Your task to perform on an android device: Open Google Chrome and click the shortcut for Amazon.com Image 0: 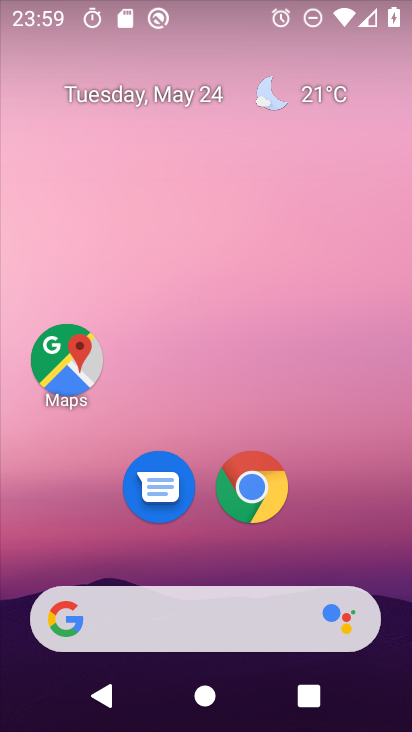
Step 0: click (328, 504)
Your task to perform on an android device: Open Google Chrome and click the shortcut for Amazon.com Image 1: 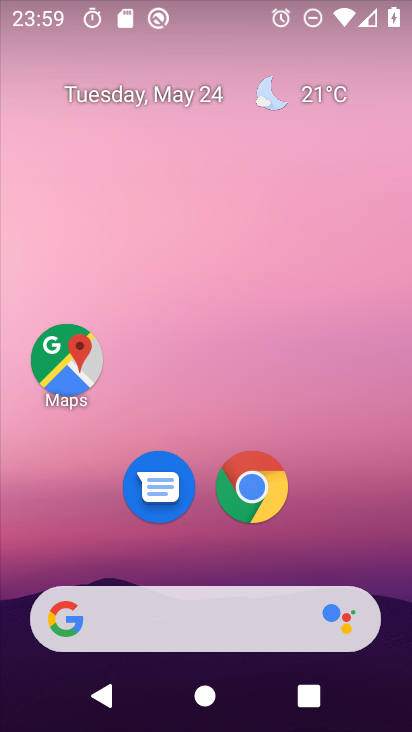
Step 1: click (251, 487)
Your task to perform on an android device: Open Google Chrome and click the shortcut for Amazon.com Image 2: 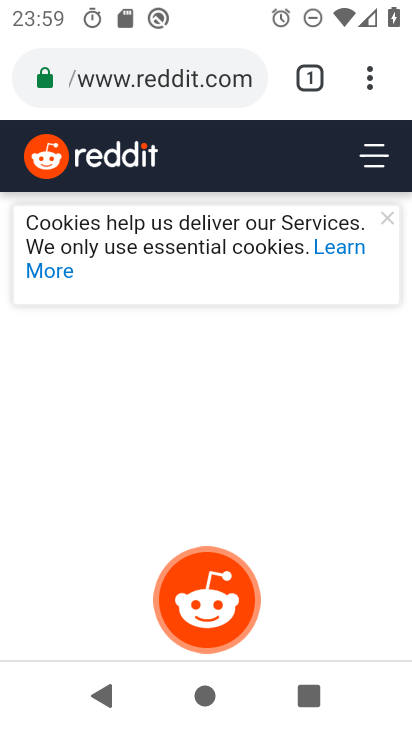
Step 2: click (158, 82)
Your task to perform on an android device: Open Google Chrome and click the shortcut for Amazon.com Image 3: 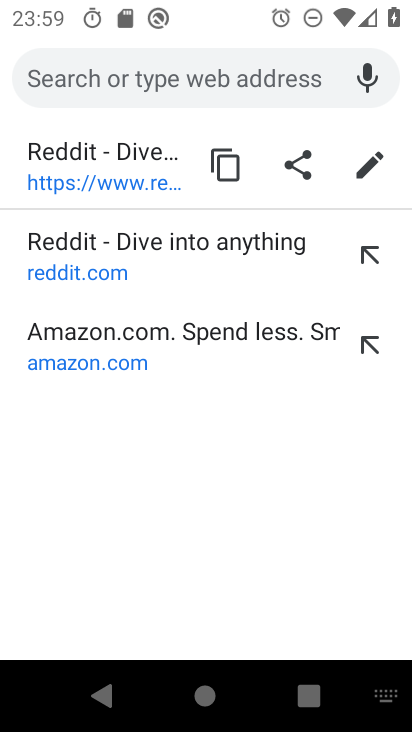
Step 3: click (76, 361)
Your task to perform on an android device: Open Google Chrome and click the shortcut for Amazon.com Image 4: 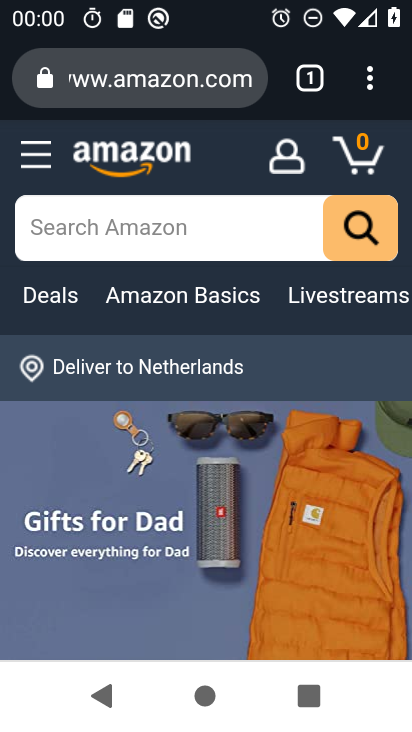
Step 4: task complete